Your task to perform on an android device: check battery use Image 0: 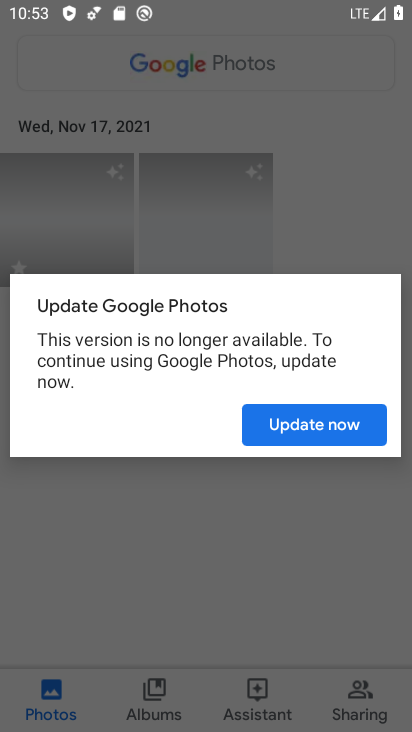
Step 0: press home button
Your task to perform on an android device: check battery use Image 1: 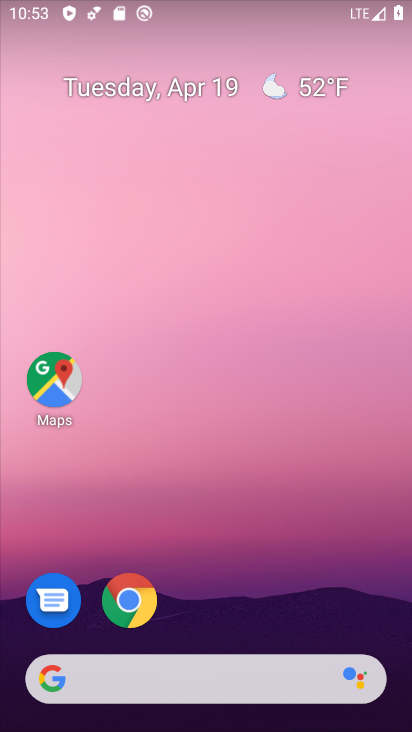
Step 1: drag from (201, 638) to (234, 191)
Your task to perform on an android device: check battery use Image 2: 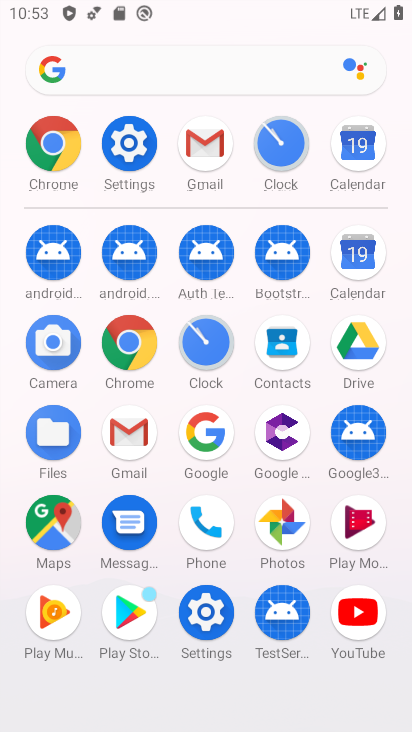
Step 2: click (122, 156)
Your task to perform on an android device: check battery use Image 3: 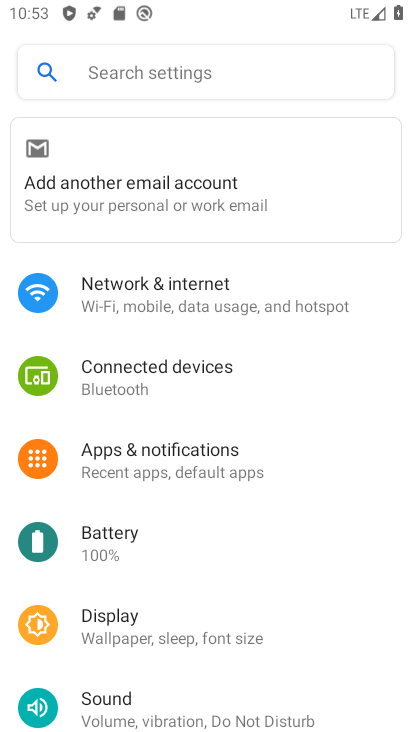
Step 3: click (131, 542)
Your task to perform on an android device: check battery use Image 4: 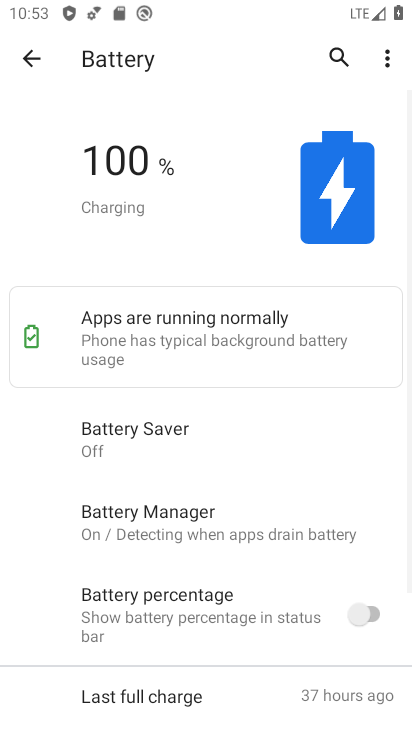
Step 4: click (383, 56)
Your task to perform on an android device: check battery use Image 5: 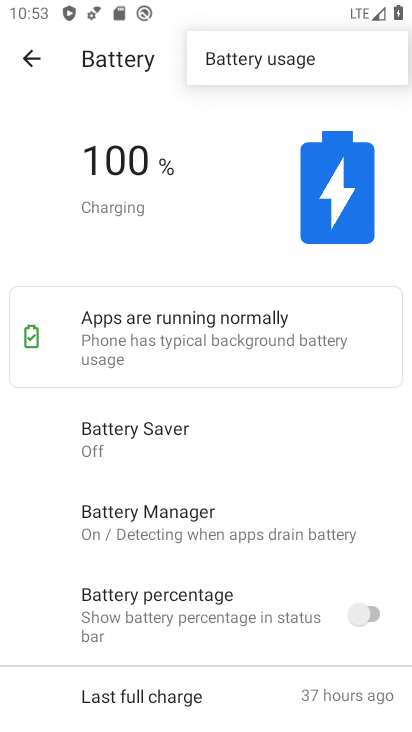
Step 5: click (285, 73)
Your task to perform on an android device: check battery use Image 6: 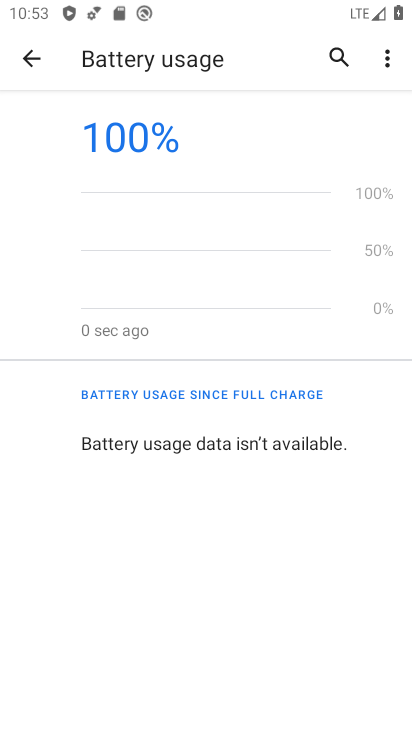
Step 6: task complete